Your task to perform on an android device: set the timer Image 0: 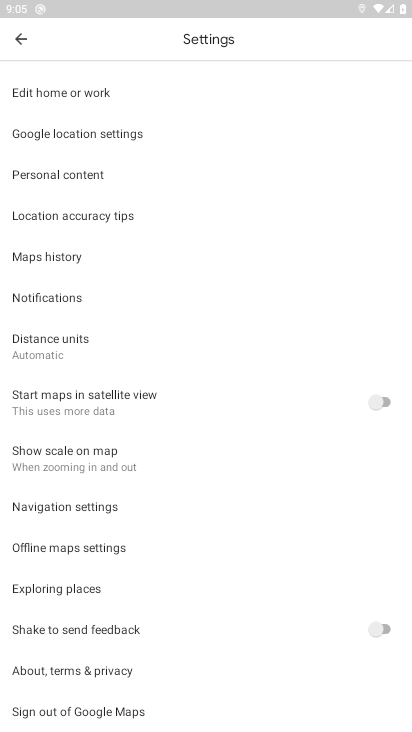
Step 0: press home button
Your task to perform on an android device: set the timer Image 1: 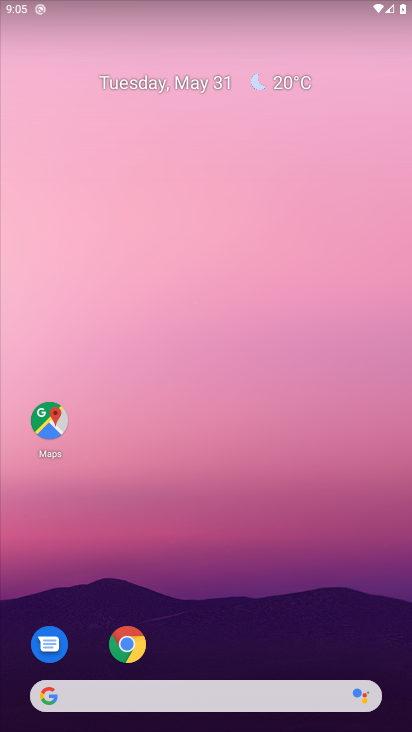
Step 1: drag from (206, 664) to (208, 118)
Your task to perform on an android device: set the timer Image 2: 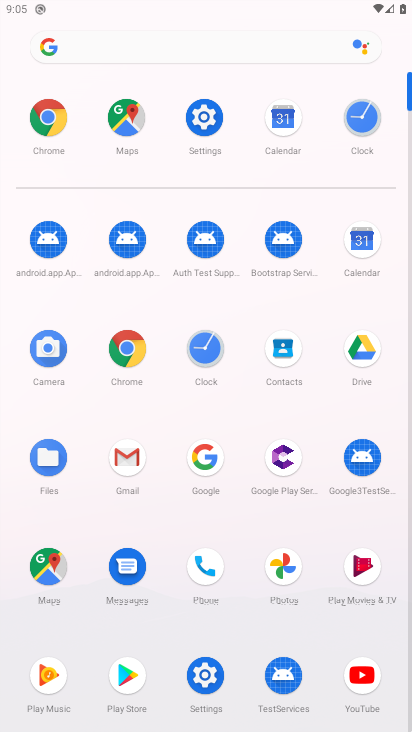
Step 2: click (204, 344)
Your task to perform on an android device: set the timer Image 3: 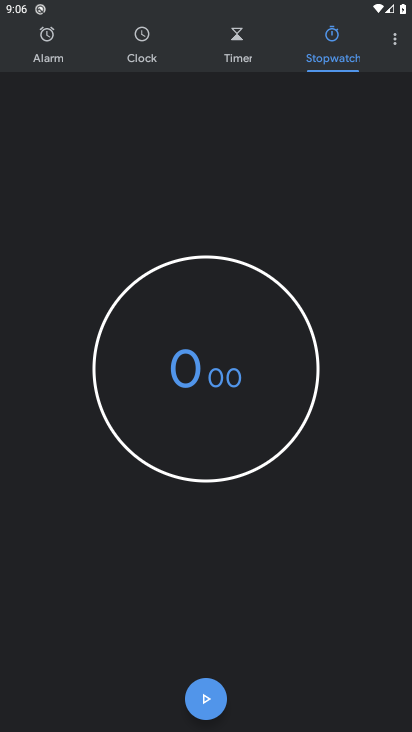
Step 3: click (219, 38)
Your task to perform on an android device: set the timer Image 4: 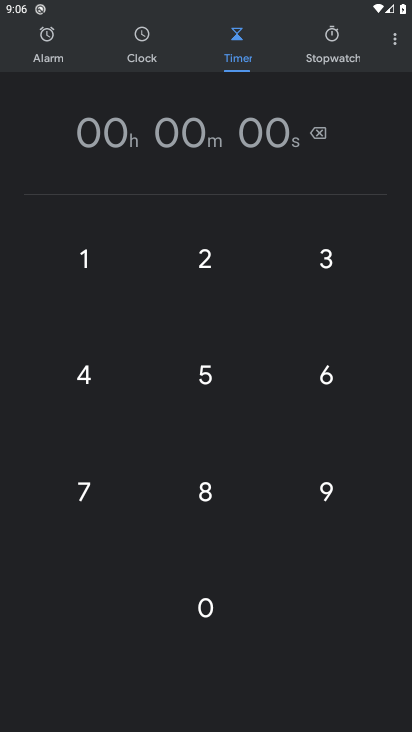
Step 4: click (203, 257)
Your task to perform on an android device: set the timer Image 5: 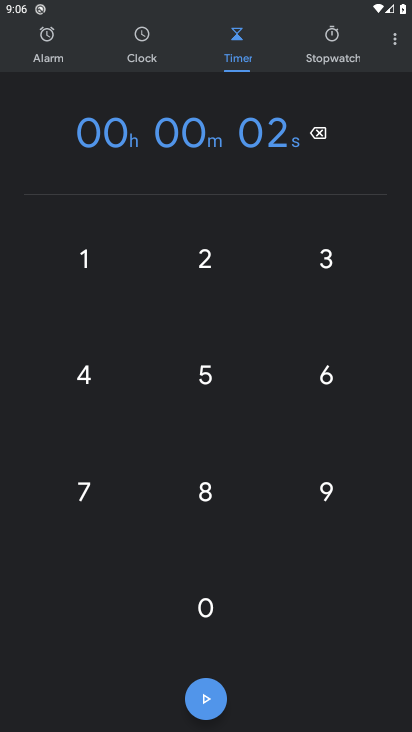
Step 5: click (199, 594)
Your task to perform on an android device: set the timer Image 6: 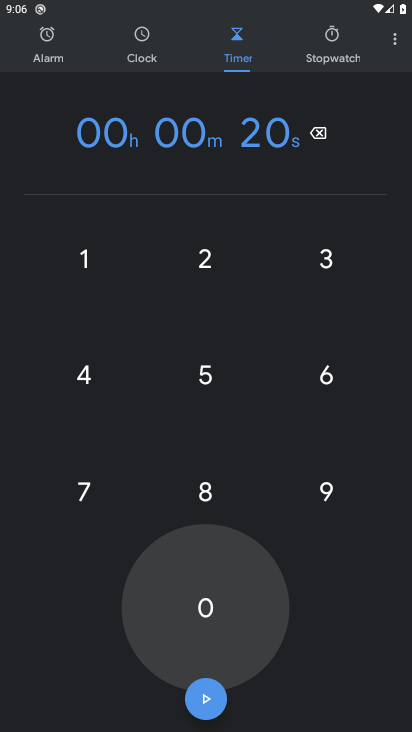
Step 6: click (203, 605)
Your task to perform on an android device: set the timer Image 7: 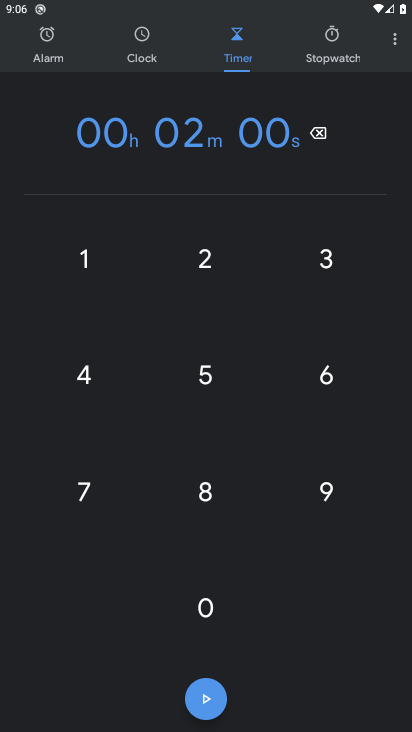
Step 7: click (203, 605)
Your task to perform on an android device: set the timer Image 8: 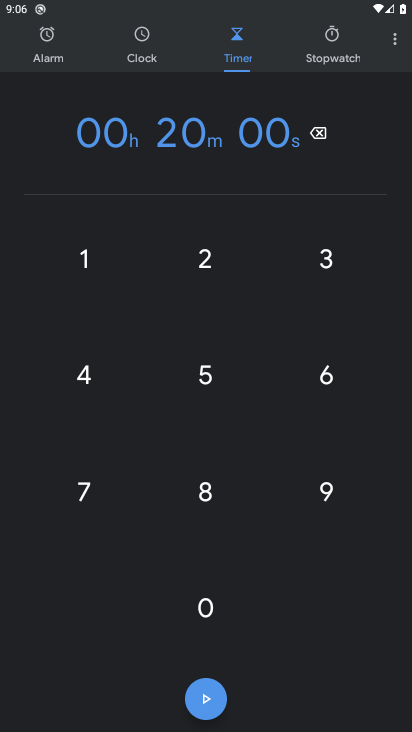
Step 8: click (203, 605)
Your task to perform on an android device: set the timer Image 9: 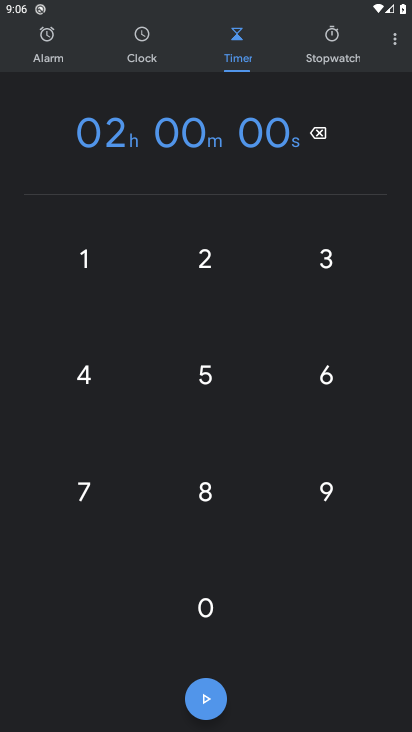
Step 9: click (198, 685)
Your task to perform on an android device: set the timer Image 10: 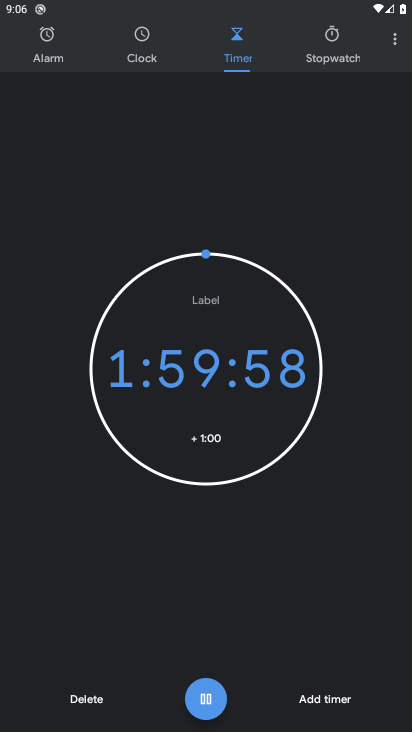
Step 10: task complete